Your task to perform on an android device: uninstall "Yahoo Mail" Image 0: 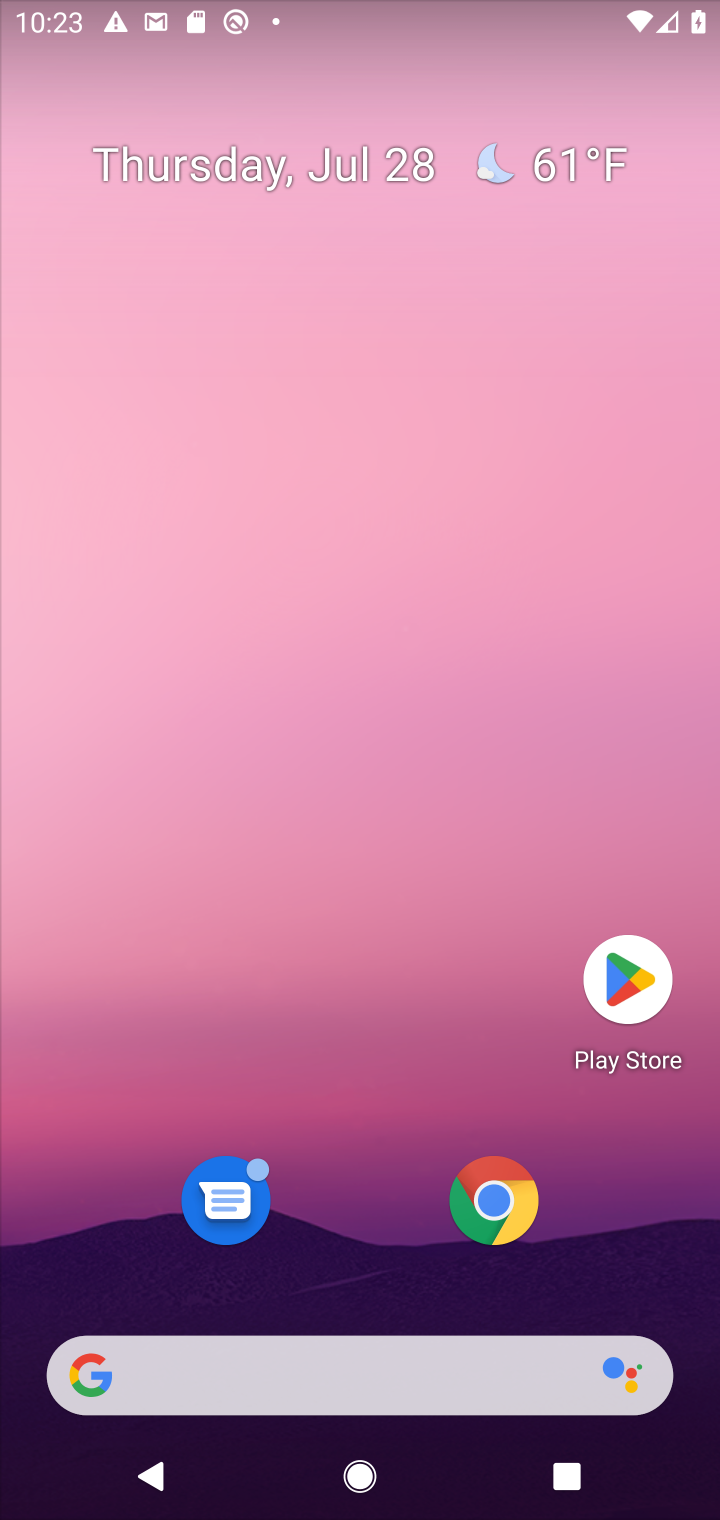
Step 0: press home button
Your task to perform on an android device: uninstall "Yahoo Mail" Image 1: 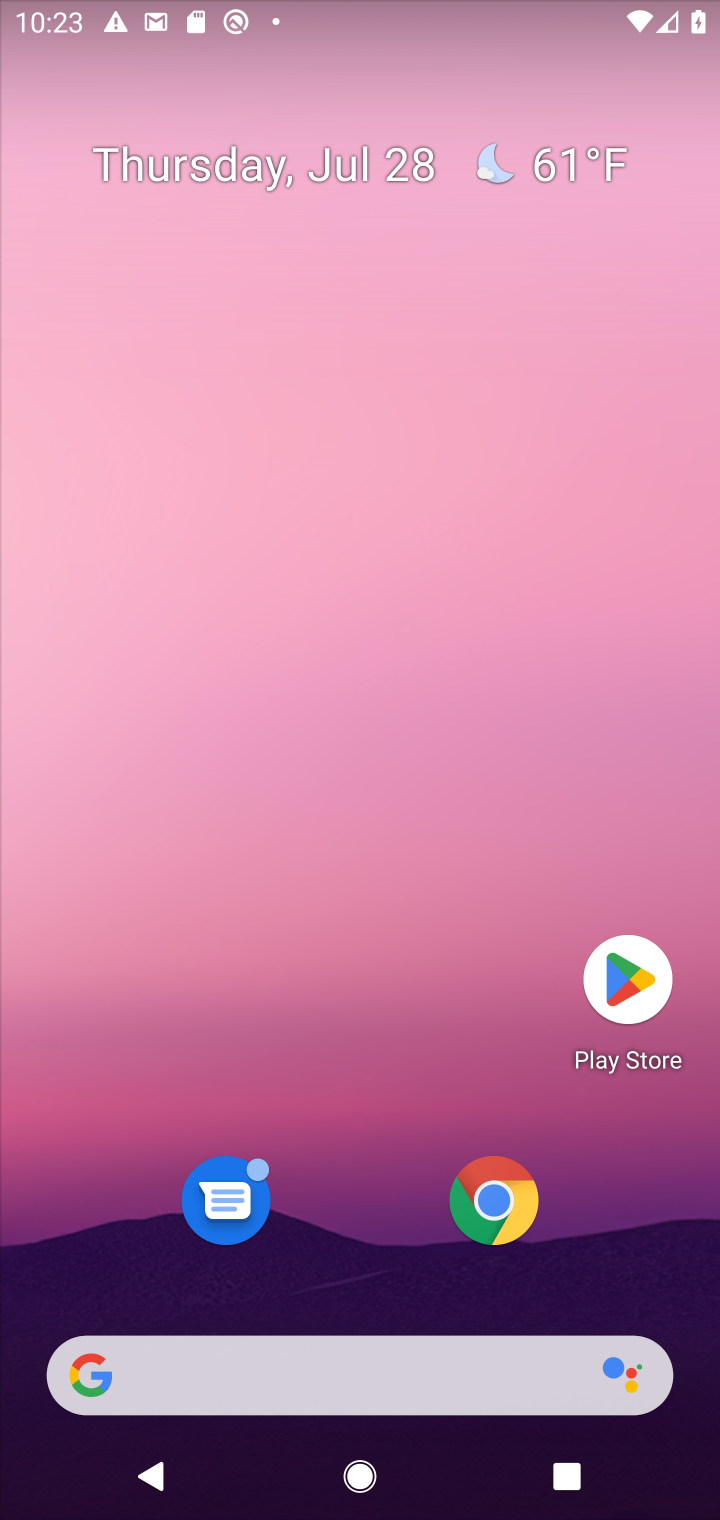
Step 1: click (635, 969)
Your task to perform on an android device: uninstall "Yahoo Mail" Image 2: 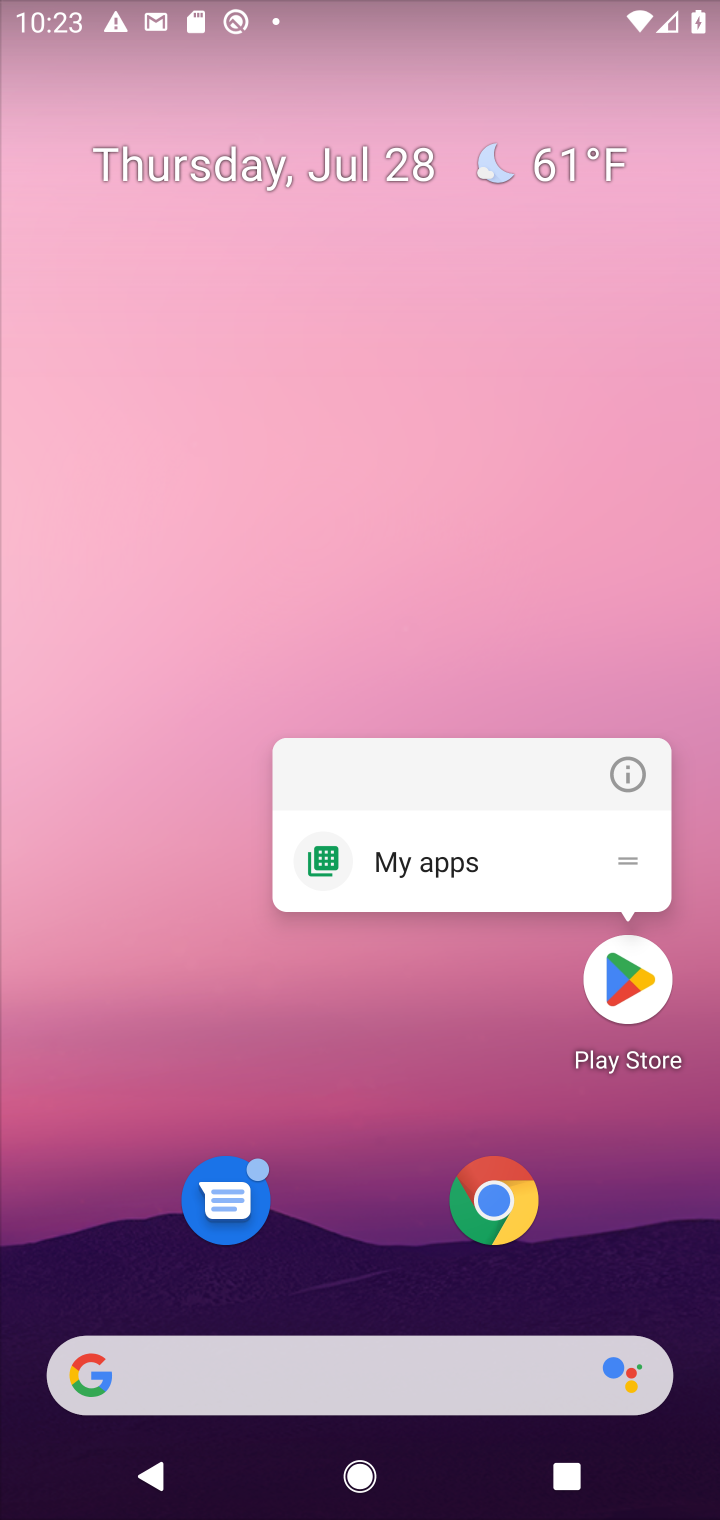
Step 2: click (635, 976)
Your task to perform on an android device: uninstall "Yahoo Mail" Image 3: 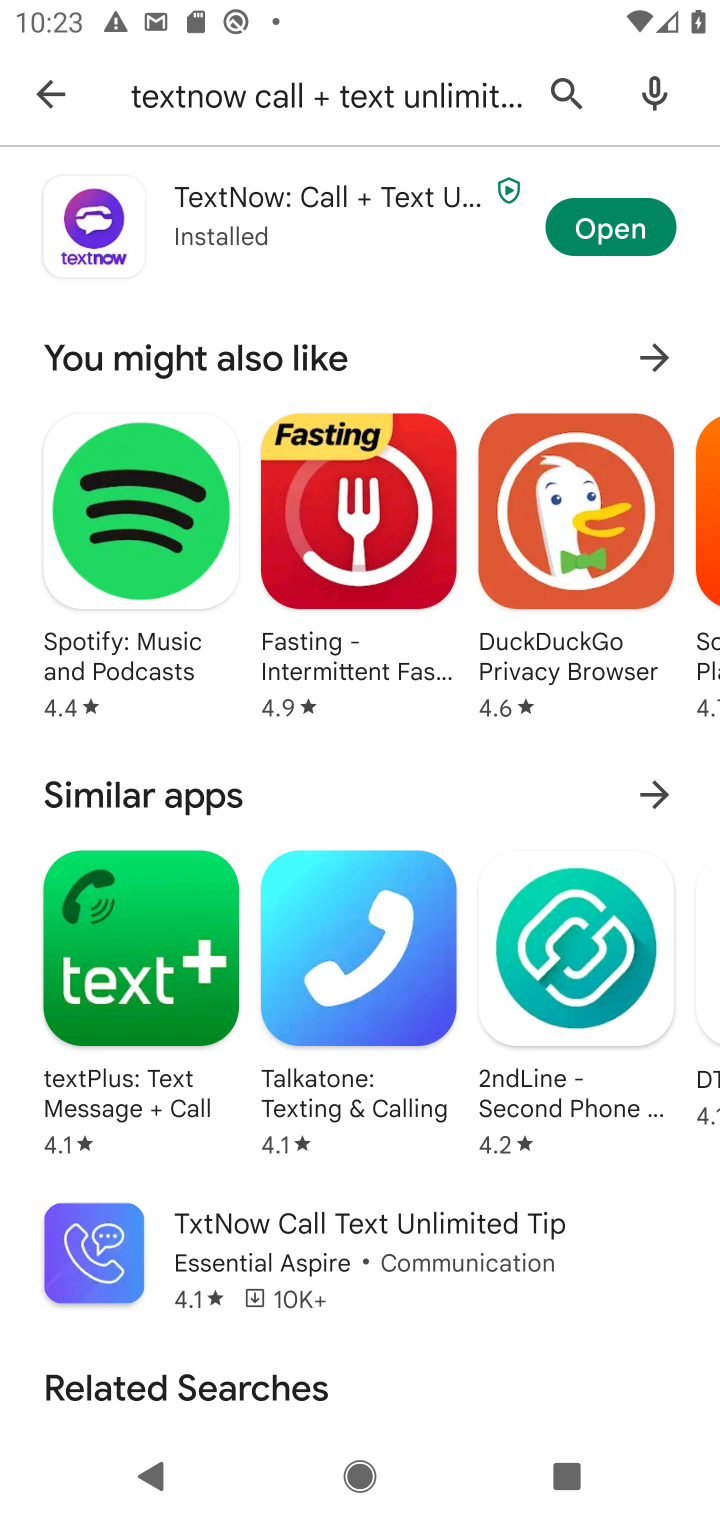
Step 3: click (562, 82)
Your task to perform on an android device: uninstall "Yahoo Mail" Image 4: 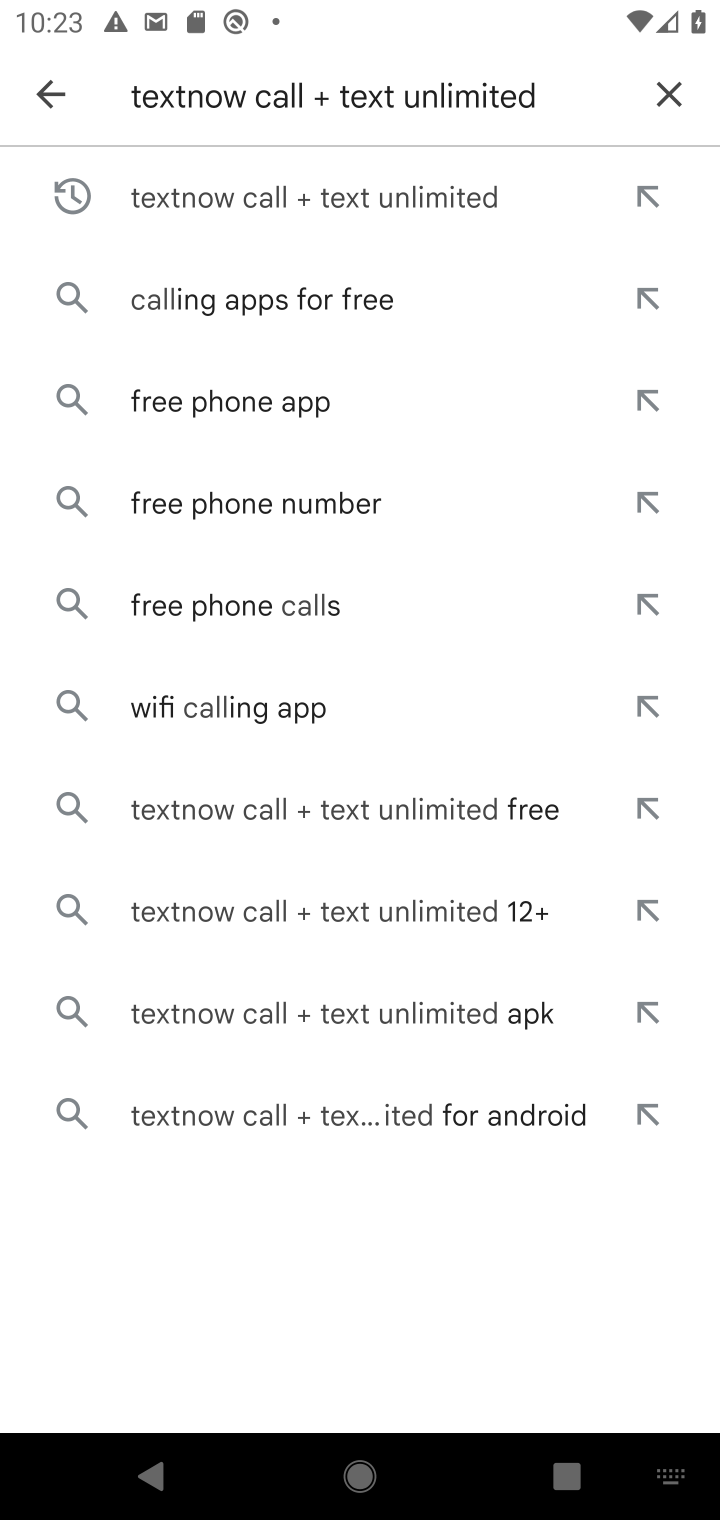
Step 4: click (669, 88)
Your task to perform on an android device: uninstall "Yahoo Mail" Image 5: 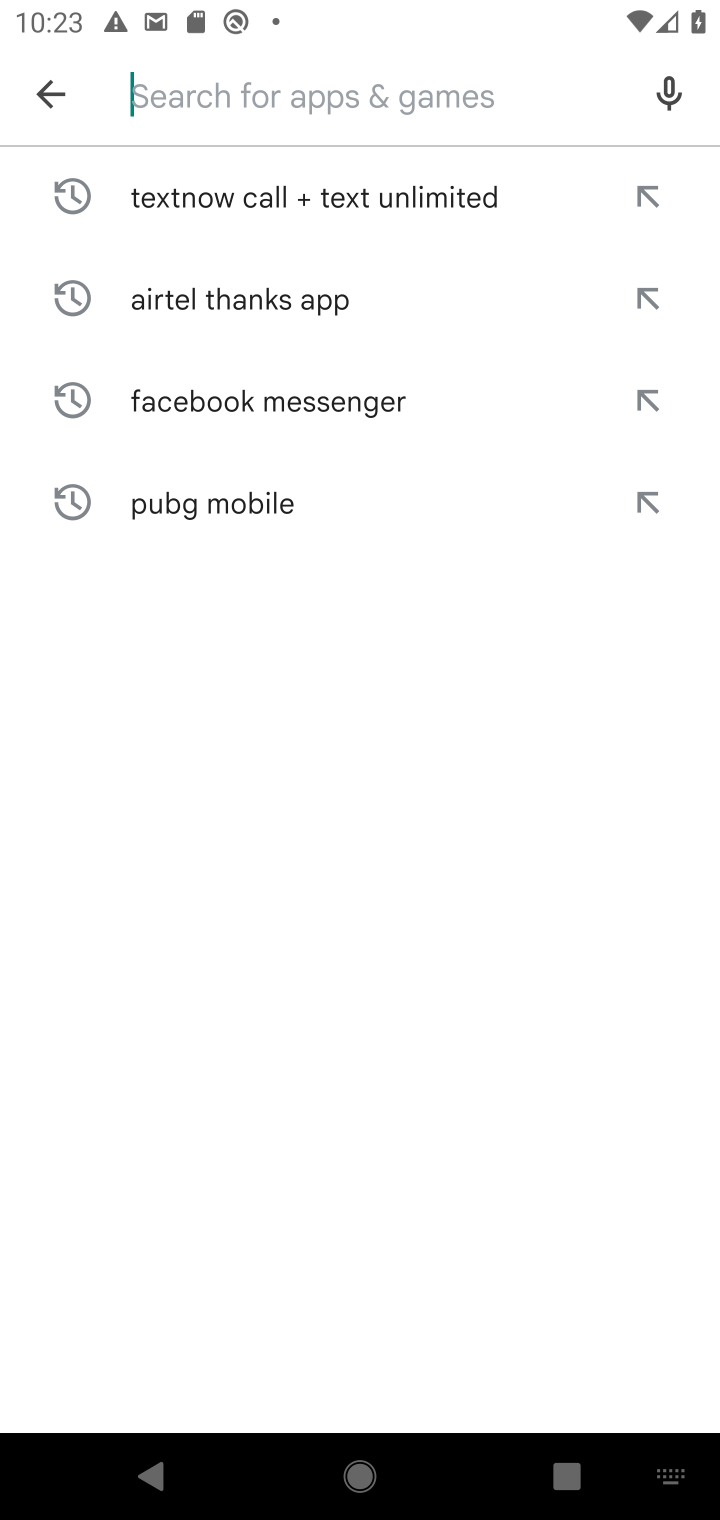
Step 5: type "Yahoo Mail"
Your task to perform on an android device: uninstall "Yahoo Mail" Image 6: 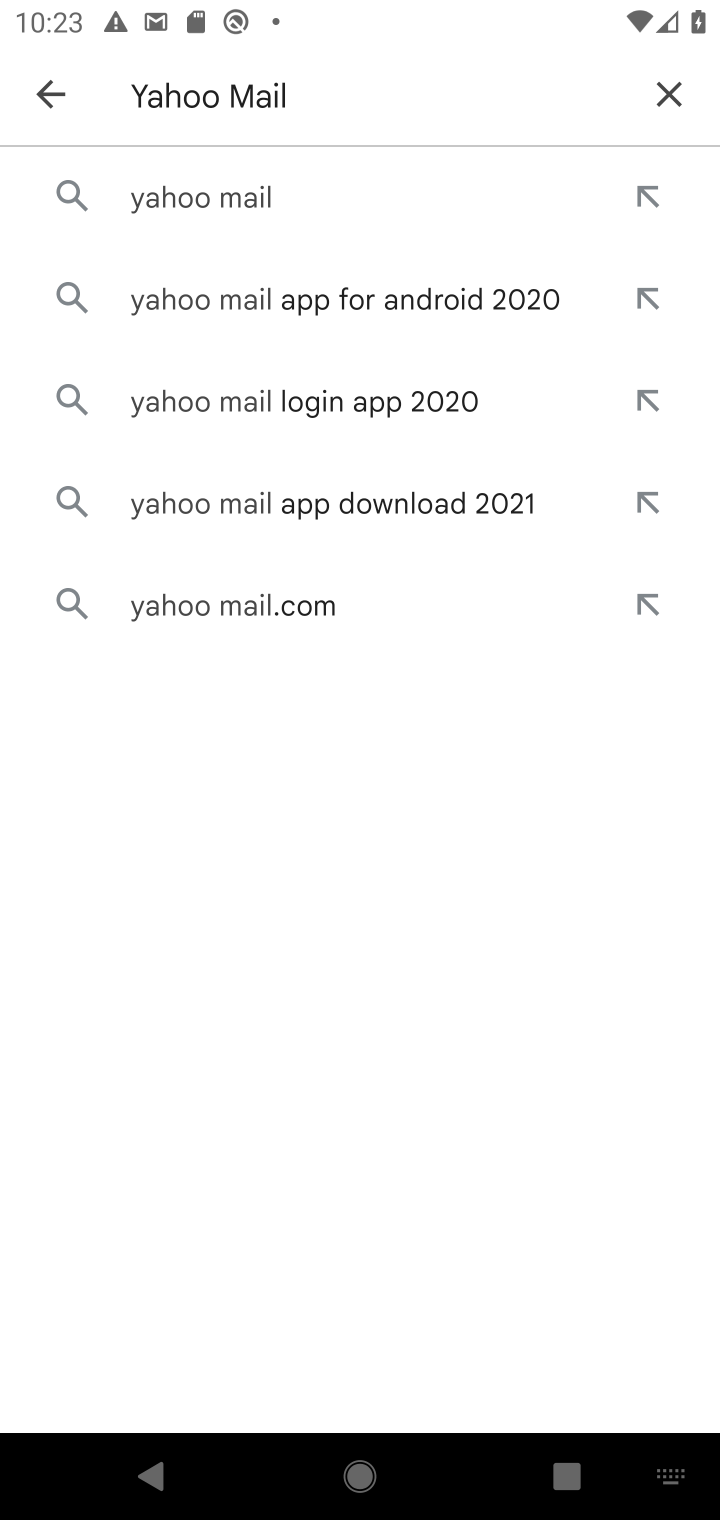
Step 6: click (185, 199)
Your task to perform on an android device: uninstall "Yahoo Mail" Image 7: 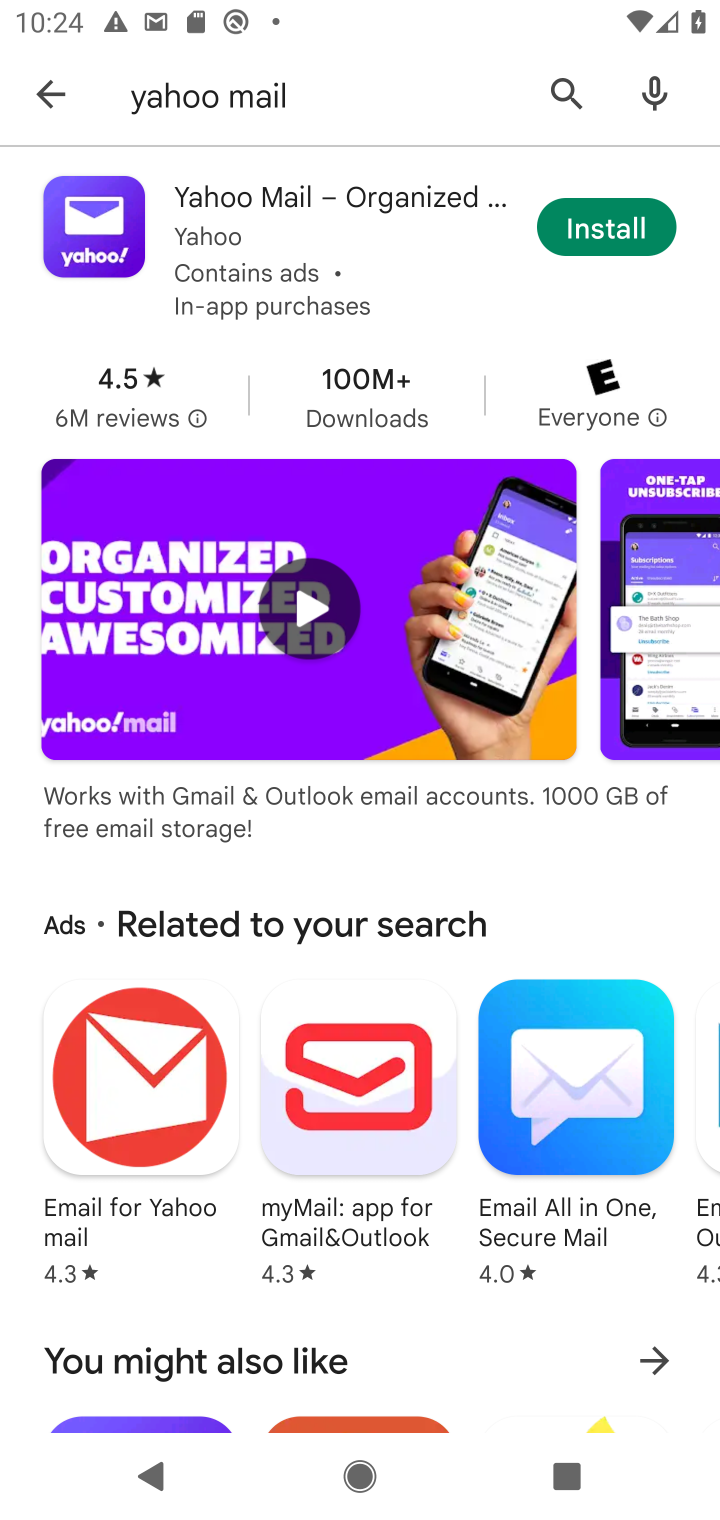
Step 7: task complete